Your task to perform on an android device: Turn off the flashlight Image 0: 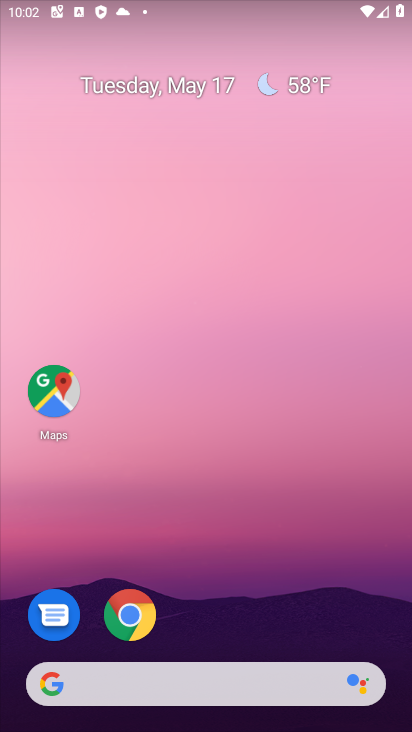
Step 0: drag from (224, 25) to (241, 465)
Your task to perform on an android device: Turn off the flashlight Image 1: 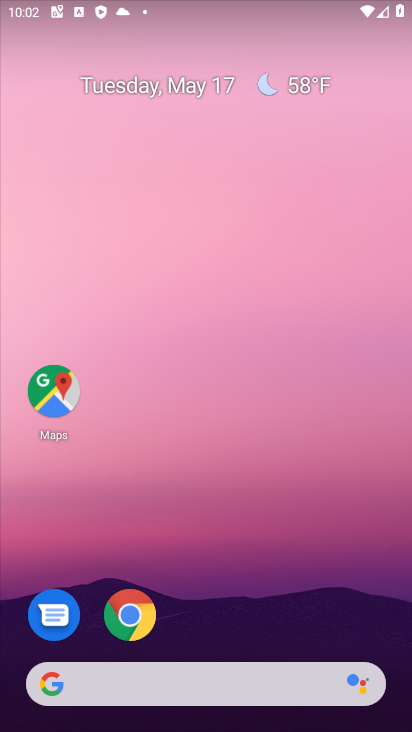
Step 1: drag from (259, 27) to (254, 513)
Your task to perform on an android device: Turn off the flashlight Image 2: 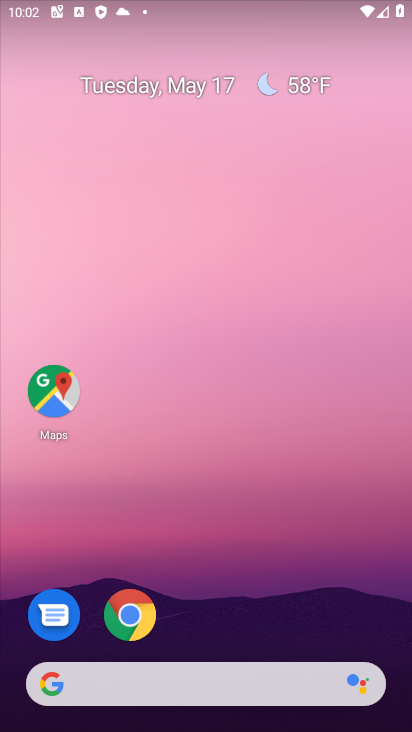
Step 2: drag from (238, 7) to (222, 541)
Your task to perform on an android device: Turn off the flashlight Image 3: 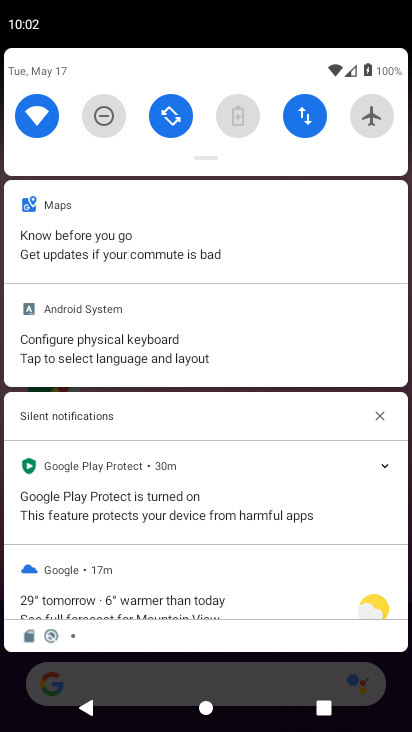
Step 3: drag from (202, 158) to (198, 433)
Your task to perform on an android device: Turn off the flashlight Image 4: 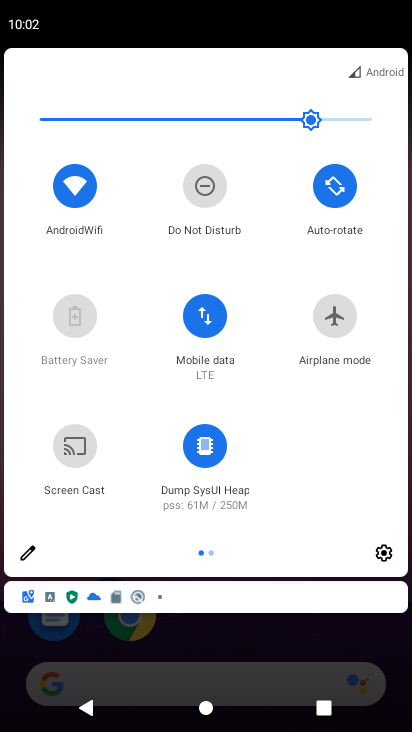
Step 4: click (20, 551)
Your task to perform on an android device: Turn off the flashlight Image 5: 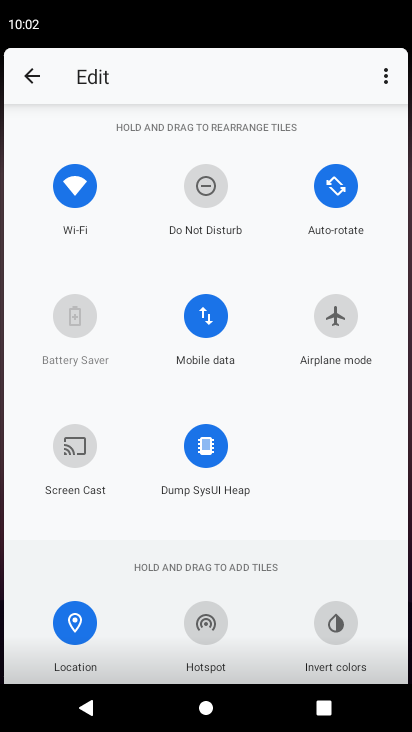
Step 5: task complete